Your task to perform on an android device: toggle location history Image 0: 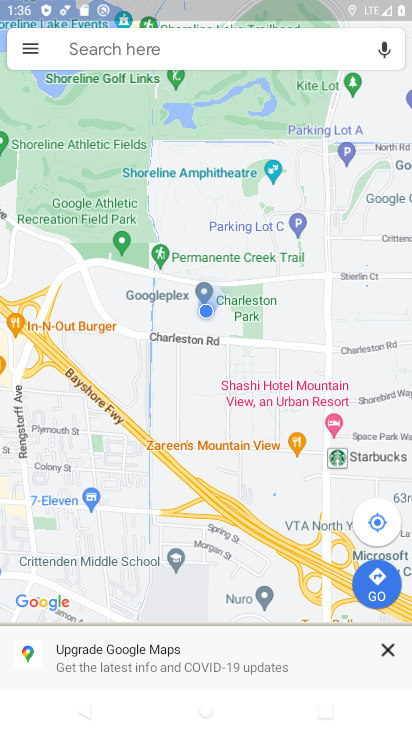
Step 0: press home button
Your task to perform on an android device: toggle location history Image 1: 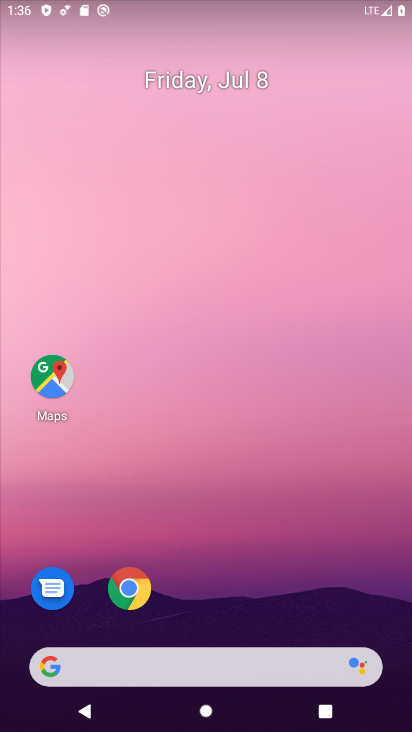
Step 1: drag from (274, 580) to (276, 1)
Your task to perform on an android device: toggle location history Image 2: 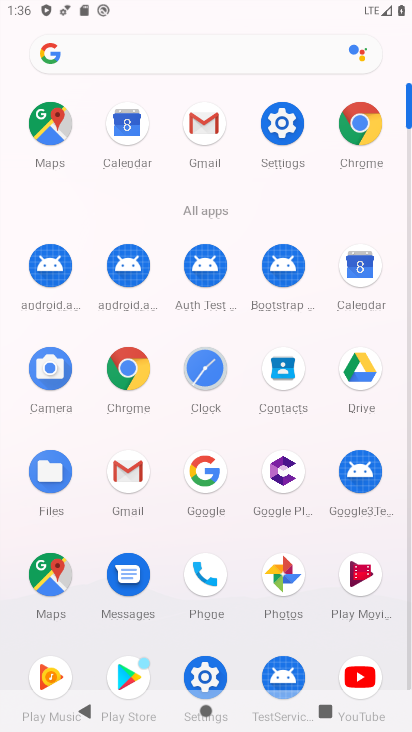
Step 2: click (283, 137)
Your task to perform on an android device: toggle location history Image 3: 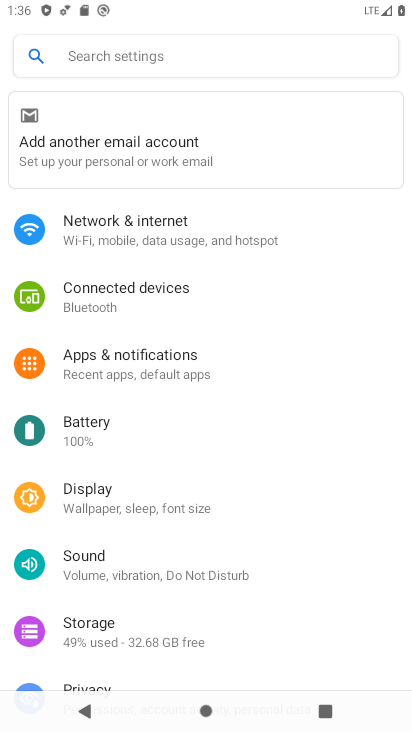
Step 3: drag from (206, 600) to (232, 238)
Your task to perform on an android device: toggle location history Image 4: 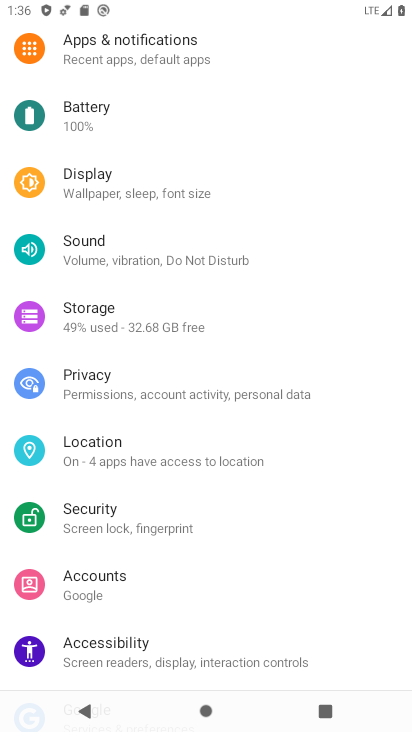
Step 4: click (110, 443)
Your task to perform on an android device: toggle location history Image 5: 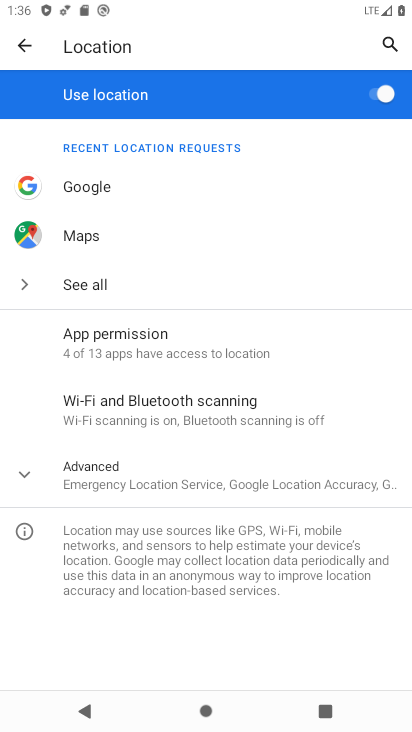
Step 5: click (25, 470)
Your task to perform on an android device: toggle location history Image 6: 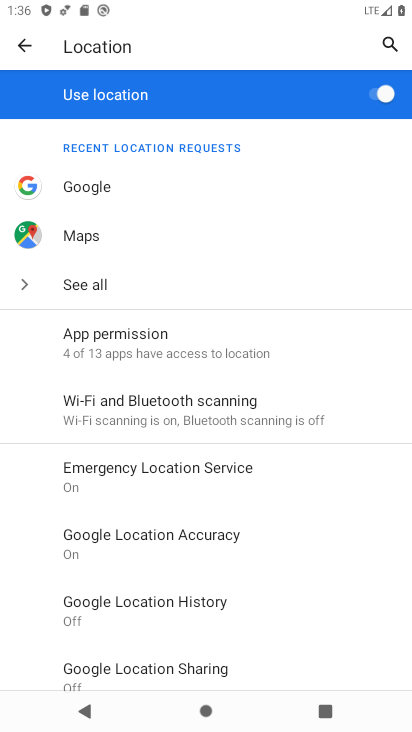
Step 6: click (138, 606)
Your task to perform on an android device: toggle location history Image 7: 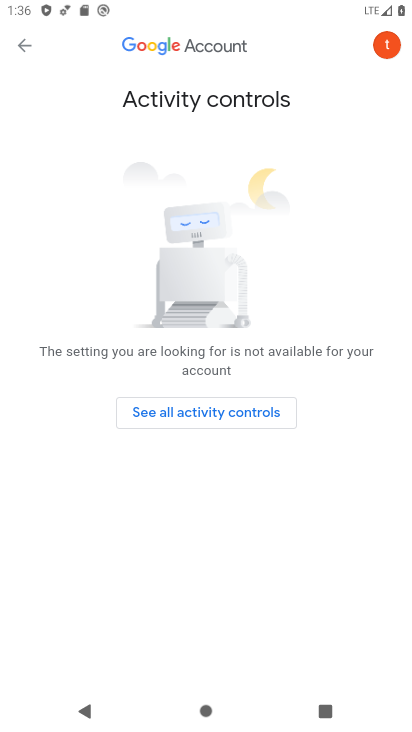
Step 7: click (27, 52)
Your task to perform on an android device: toggle location history Image 8: 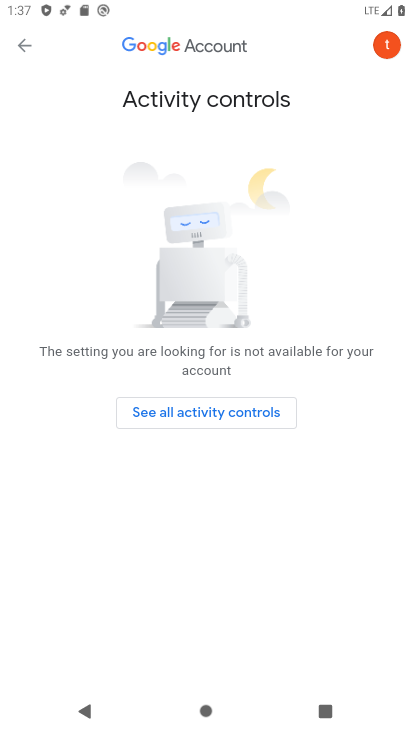
Step 8: click (22, 44)
Your task to perform on an android device: toggle location history Image 9: 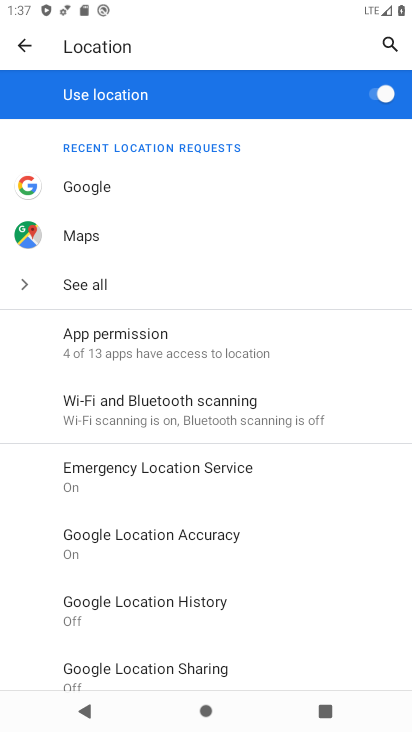
Step 9: click (177, 610)
Your task to perform on an android device: toggle location history Image 10: 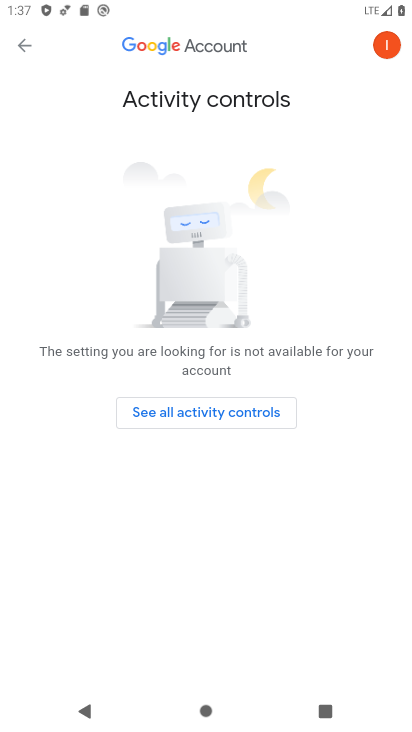
Step 10: click (193, 415)
Your task to perform on an android device: toggle location history Image 11: 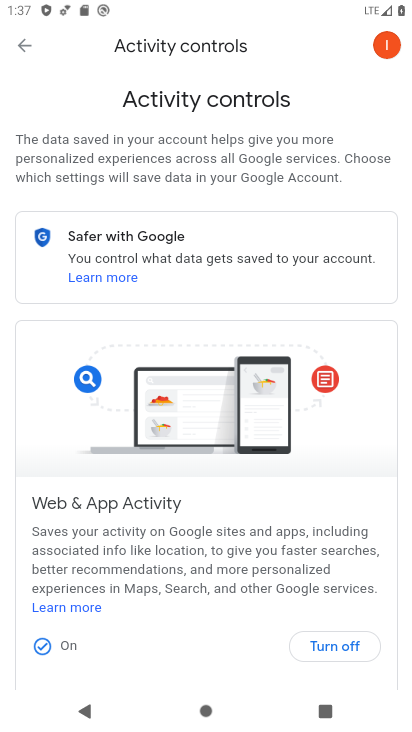
Step 11: click (54, 643)
Your task to perform on an android device: toggle location history Image 12: 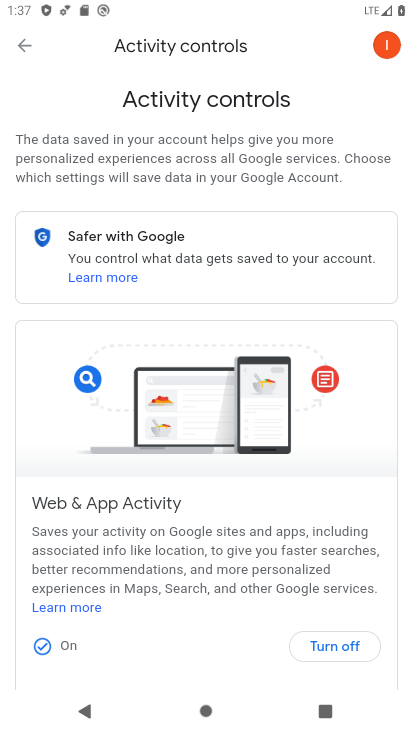
Step 12: click (41, 649)
Your task to perform on an android device: toggle location history Image 13: 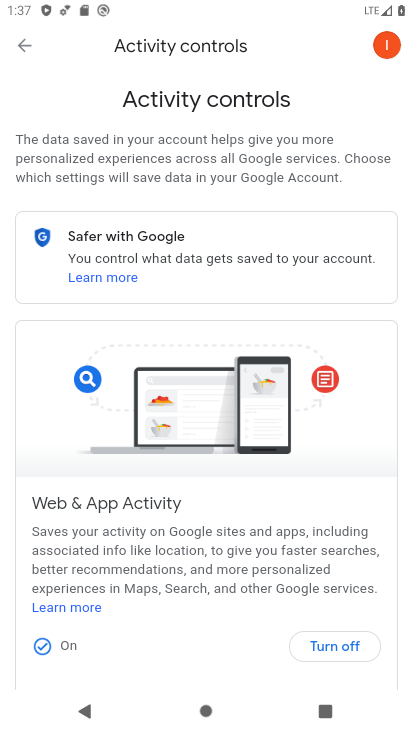
Step 13: click (68, 646)
Your task to perform on an android device: toggle location history Image 14: 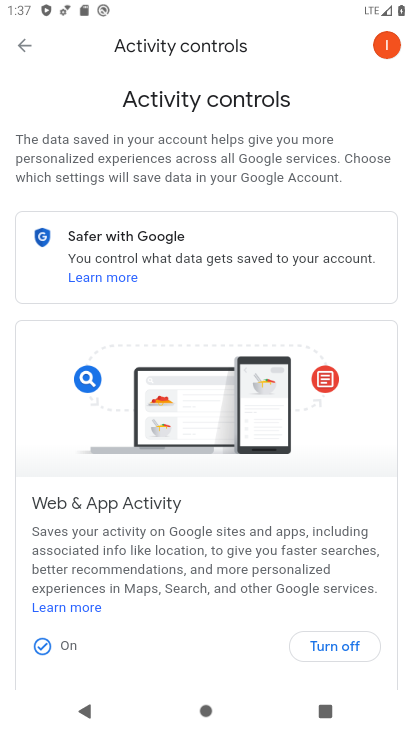
Step 14: task complete